Your task to perform on an android device: Open Google Maps and go to "Timeline" Image 0: 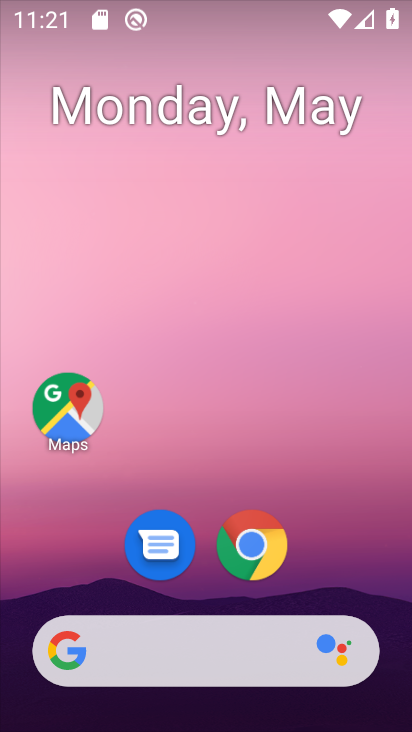
Step 0: click (69, 422)
Your task to perform on an android device: Open Google Maps and go to "Timeline" Image 1: 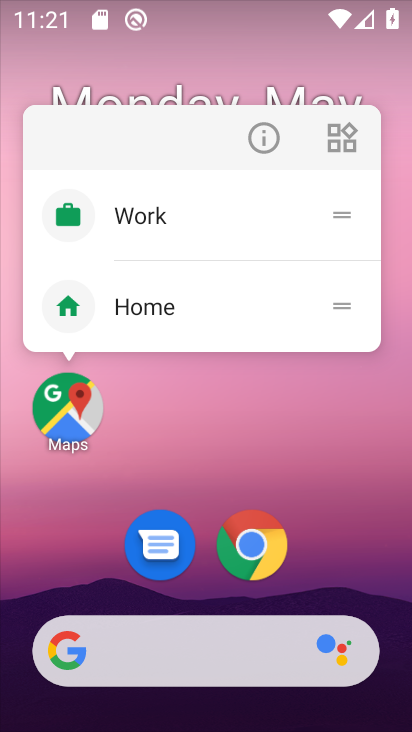
Step 1: click (72, 422)
Your task to perform on an android device: Open Google Maps and go to "Timeline" Image 2: 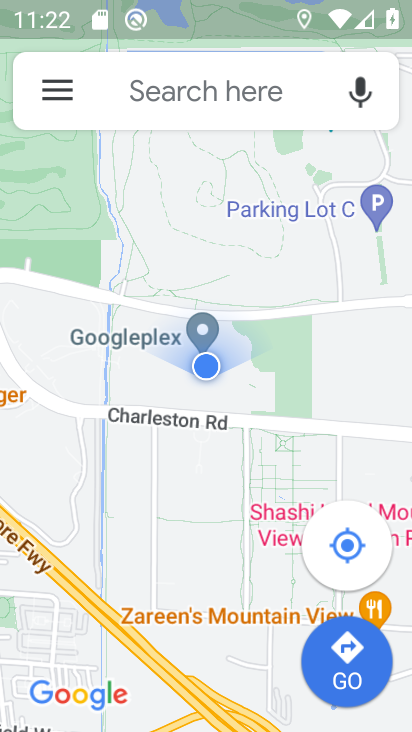
Step 2: click (72, 103)
Your task to perform on an android device: Open Google Maps and go to "Timeline" Image 3: 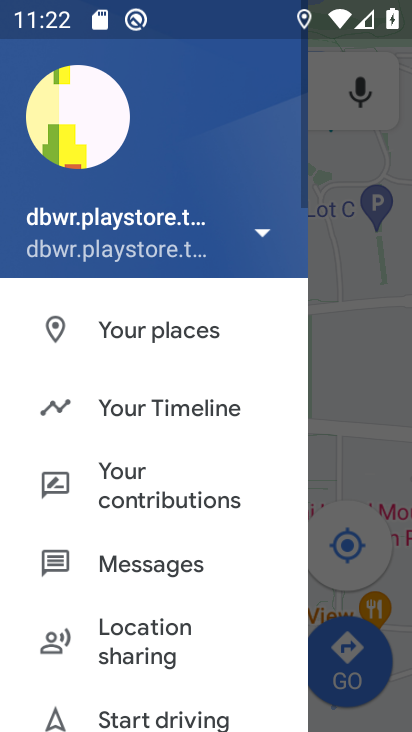
Step 3: click (200, 409)
Your task to perform on an android device: Open Google Maps and go to "Timeline" Image 4: 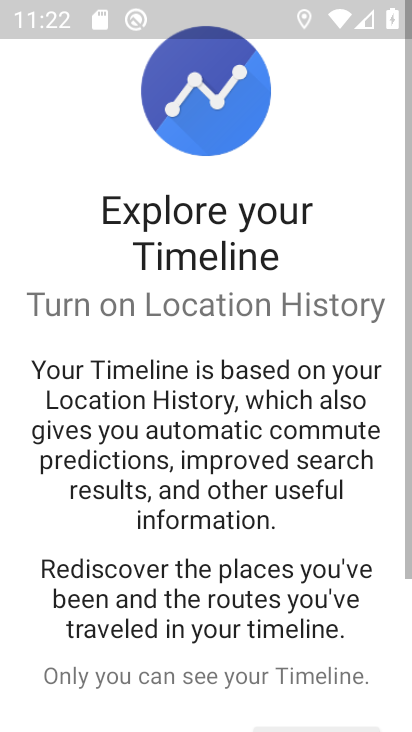
Step 4: drag from (257, 598) to (336, 258)
Your task to perform on an android device: Open Google Maps and go to "Timeline" Image 5: 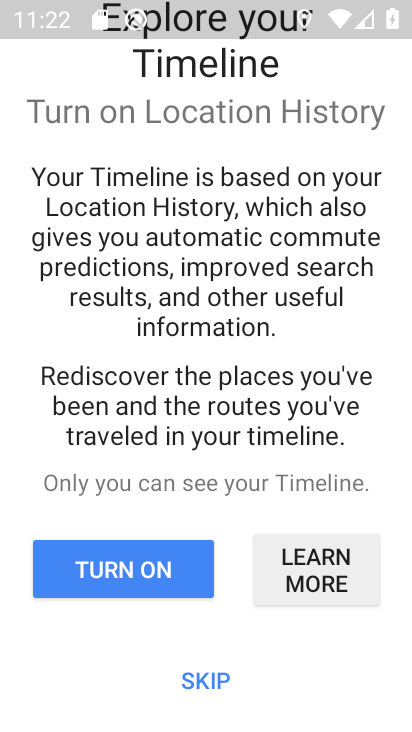
Step 5: click (216, 689)
Your task to perform on an android device: Open Google Maps and go to "Timeline" Image 6: 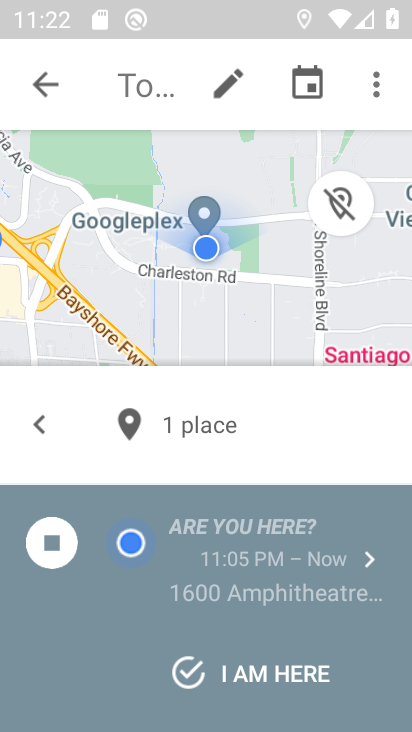
Step 6: task complete